Your task to perform on an android device: Open calendar and show me the fourth week of next month Image 0: 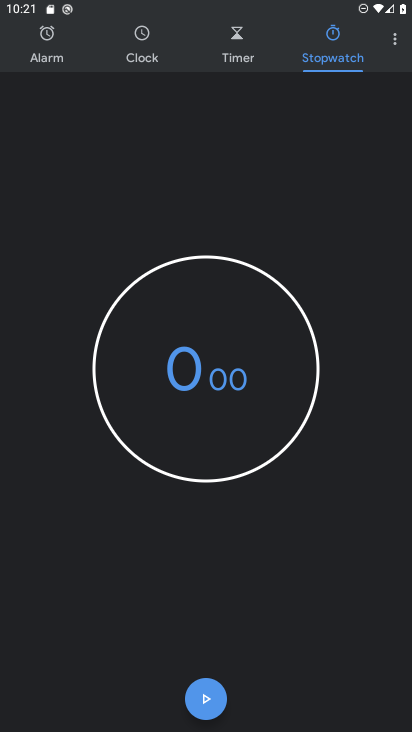
Step 0: press back button
Your task to perform on an android device: Open calendar and show me the fourth week of next month Image 1: 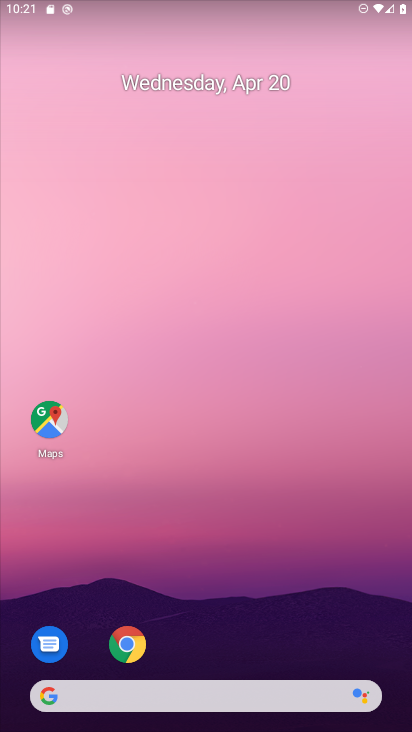
Step 1: drag from (281, 626) to (247, 94)
Your task to perform on an android device: Open calendar and show me the fourth week of next month Image 2: 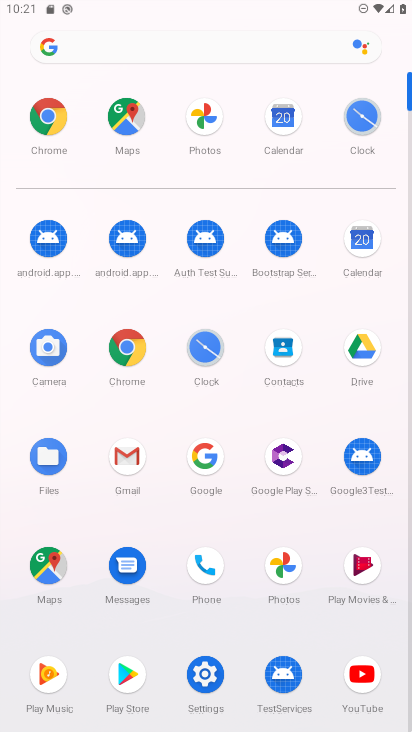
Step 2: click (358, 234)
Your task to perform on an android device: Open calendar and show me the fourth week of next month Image 3: 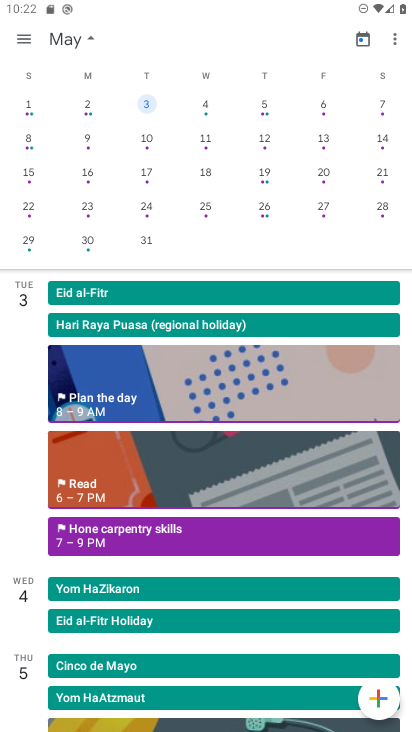
Step 3: drag from (353, 189) to (0, 157)
Your task to perform on an android device: Open calendar and show me the fourth week of next month Image 4: 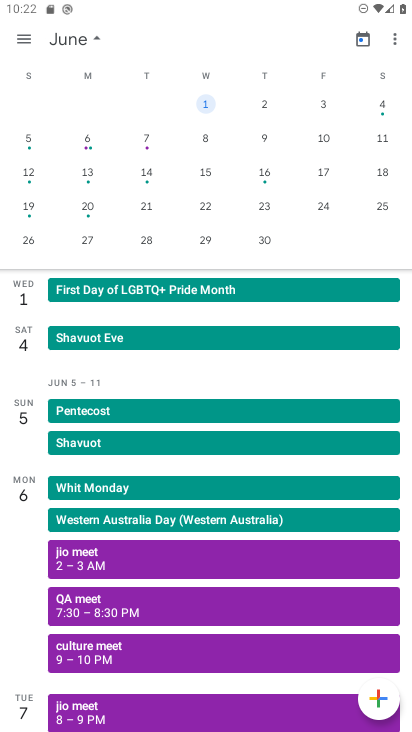
Step 4: click (147, 240)
Your task to perform on an android device: Open calendar and show me the fourth week of next month Image 5: 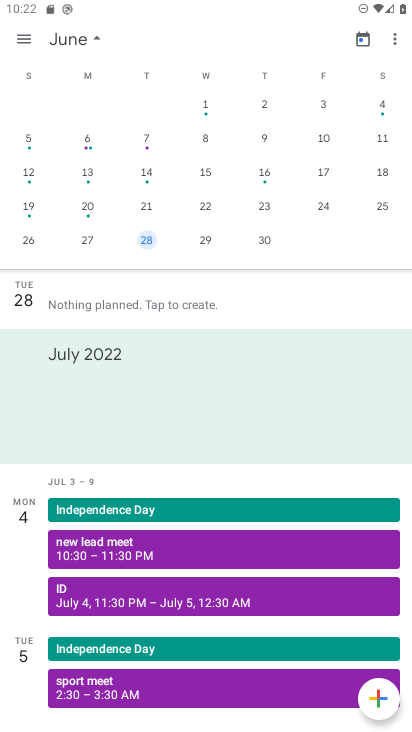
Step 5: task complete